Your task to perform on an android device: Go to CNN.com Image 0: 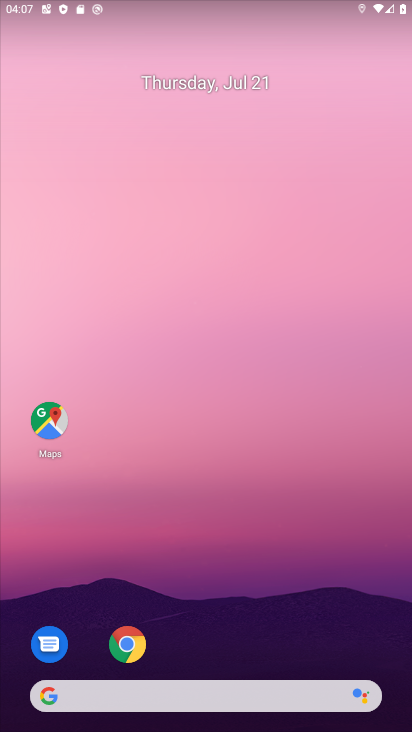
Step 0: click (129, 648)
Your task to perform on an android device: Go to CNN.com Image 1: 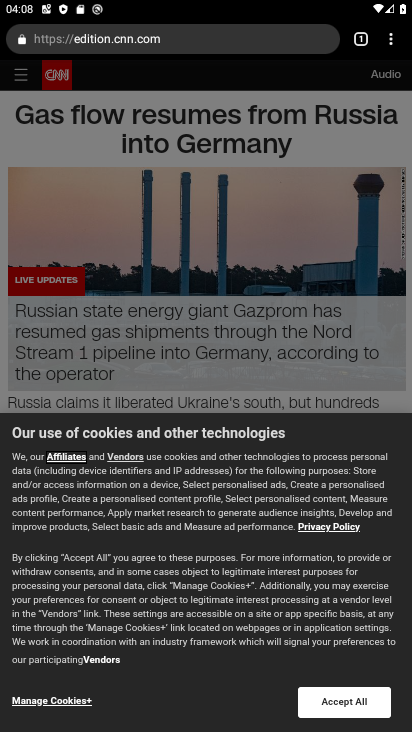
Step 1: task complete